Your task to perform on an android device: Open Google Maps and go to "Timeline" Image 0: 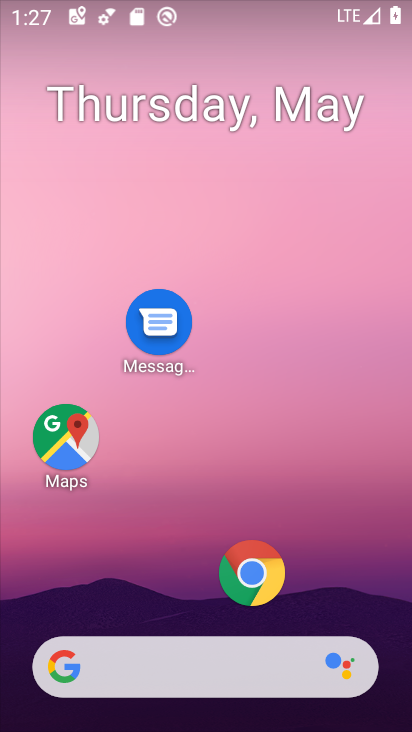
Step 0: drag from (171, 605) to (230, 106)
Your task to perform on an android device: Open Google Maps and go to "Timeline" Image 1: 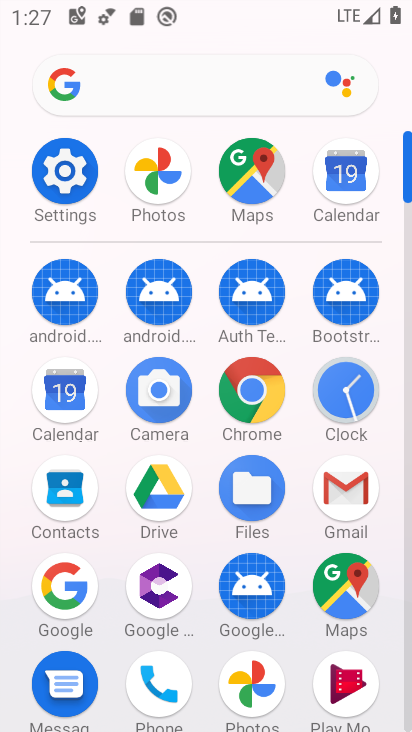
Step 1: click (344, 575)
Your task to perform on an android device: Open Google Maps and go to "Timeline" Image 2: 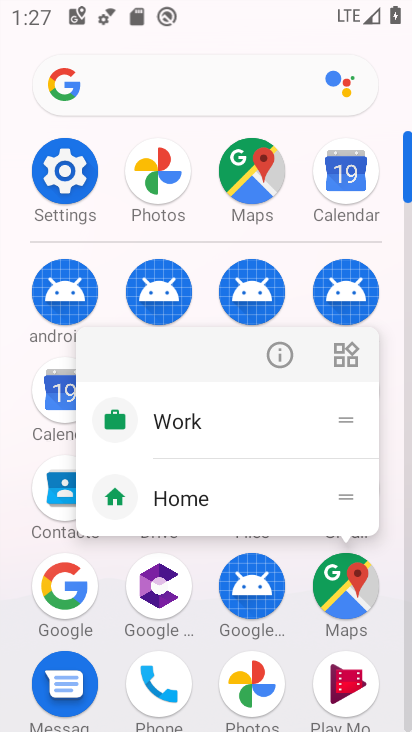
Step 2: click (287, 368)
Your task to perform on an android device: Open Google Maps and go to "Timeline" Image 3: 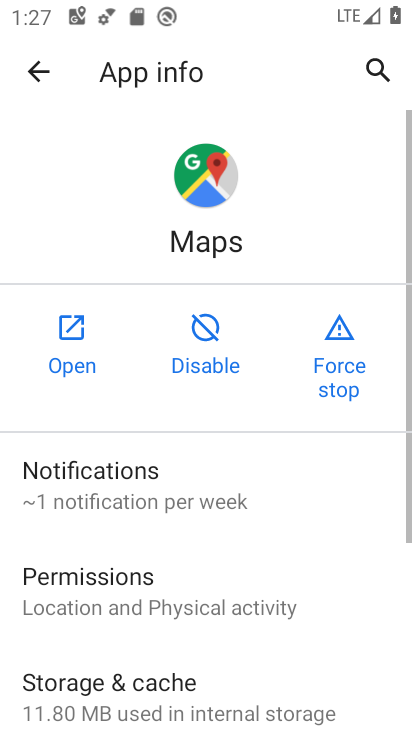
Step 3: click (60, 331)
Your task to perform on an android device: Open Google Maps and go to "Timeline" Image 4: 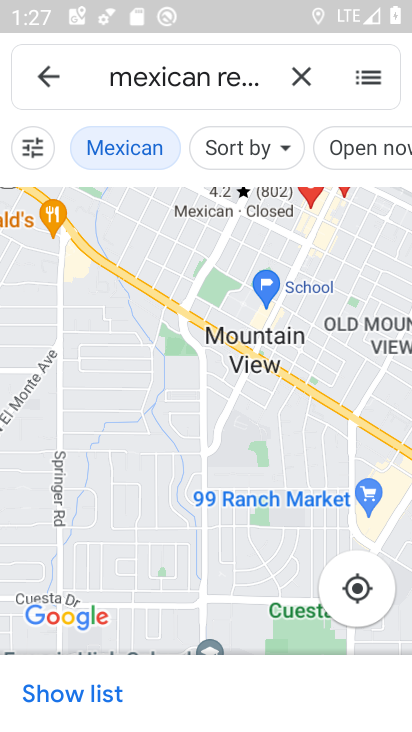
Step 4: click (57, 92)
Your task to perform on an android device: Open Google Maps and go to "Timeline" Image 5: 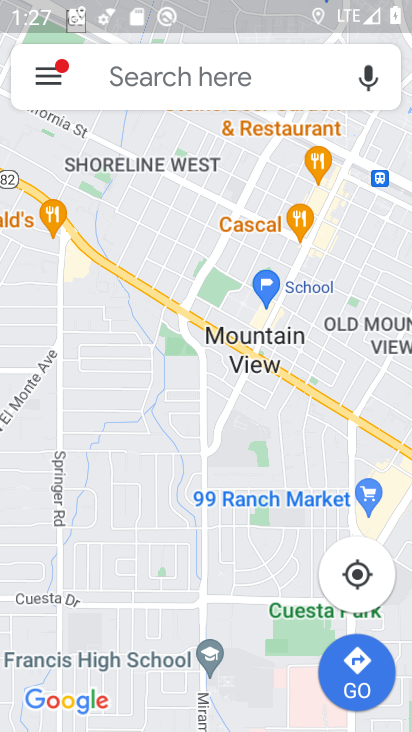
Step 5: click (28, 62)
Your task to perform on an android device: Open Google Maps and go to "Timeline" Image 6: 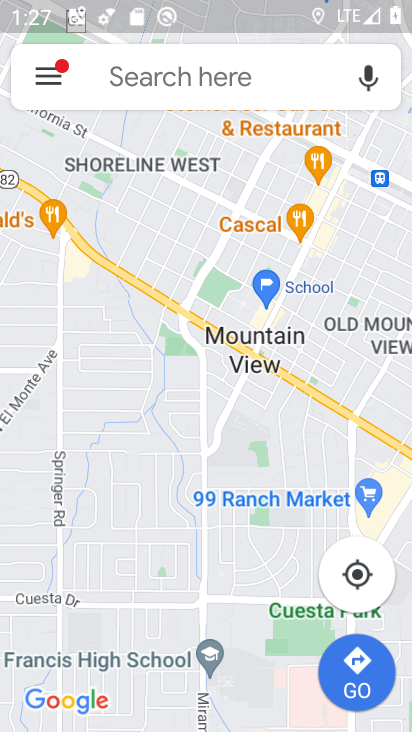
Step 6: click (39, 66)
Your task to perform on an android device: Open Google Maps and go to "Timeline" Image 7: 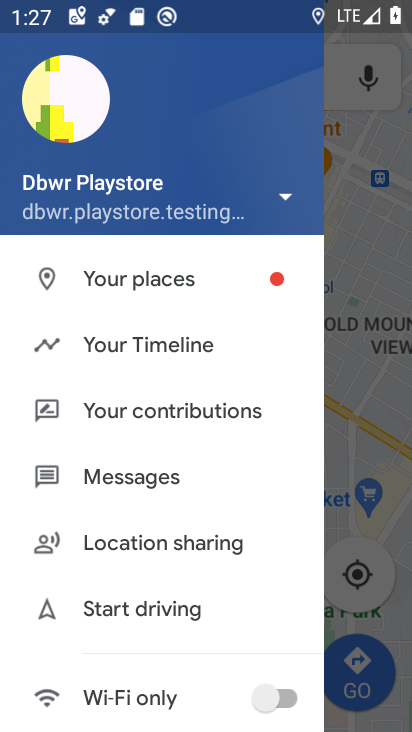
Step 7: click (141, 341)
Your task to perform on an android device: Open Google Maps and go to "Timeline" Image 8: 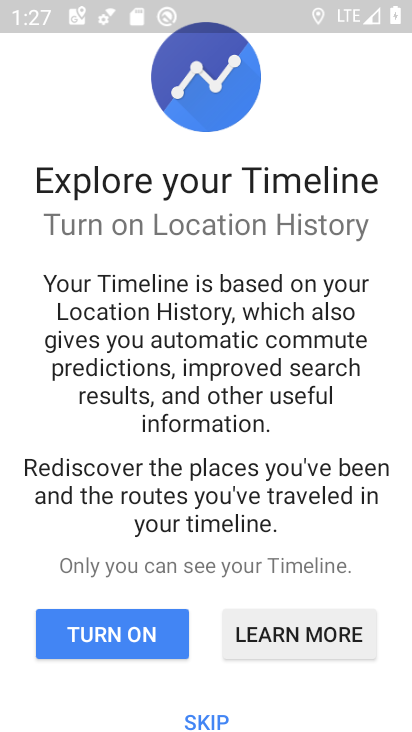
Step 8: click (108, 630)
Your task to perform on an android device: Open Google Maps and go to "Timeline" Image 9: 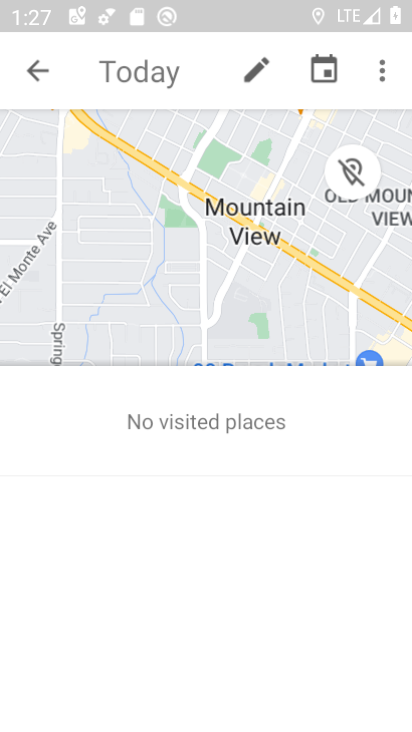
Step 9: task complete